Your task to perform on an android device: Go to battery settings Image 0: 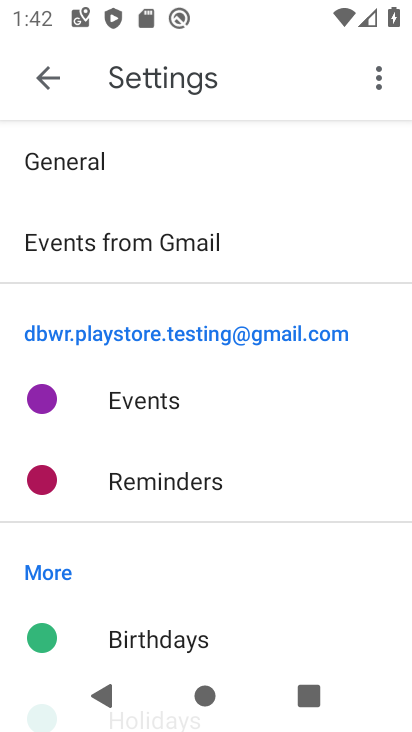
Step 0: press home button
Your task to perform on an android device: Go to battery settings Image 1: 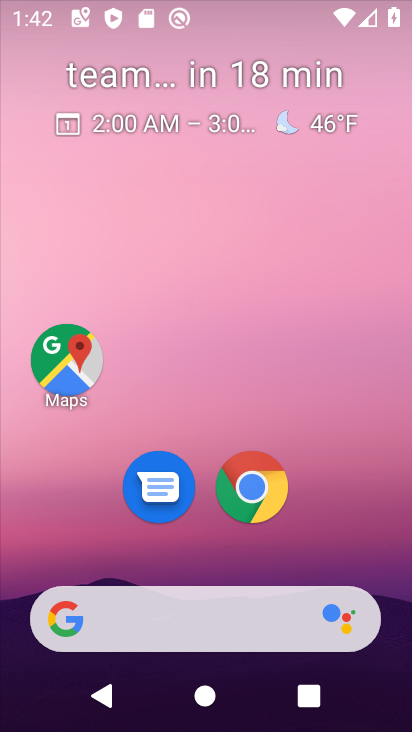
Step 1: drag from (314, 540) to (316, 98)
Your task to perform on an android device: Go to battery settings Image 2: 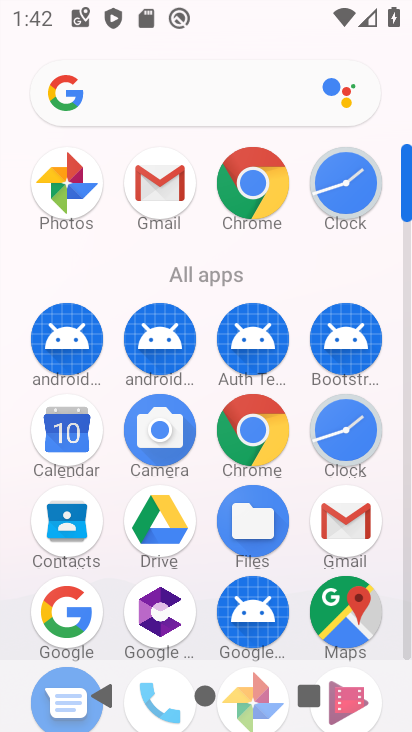
Step 2: drag from (290, 555) to (315, 151)
Your task to perform on an android device: Go to battery settings Image 3: 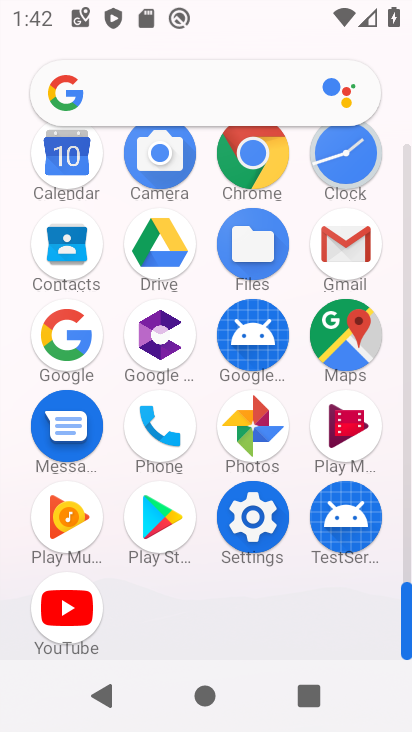
Step 3: click (265, 526)
Your task to perform on an android device: Go to battery settings Image 4: 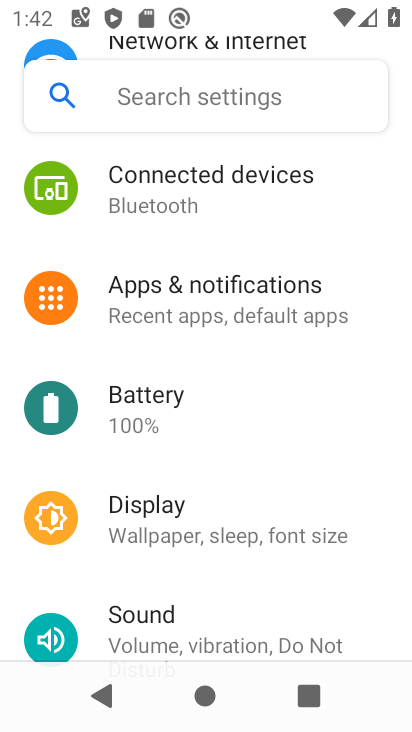
Step 4: drag from (231, 560) to (237, 384)
Your task to perform on an android device: Go to battery settings Image 5: 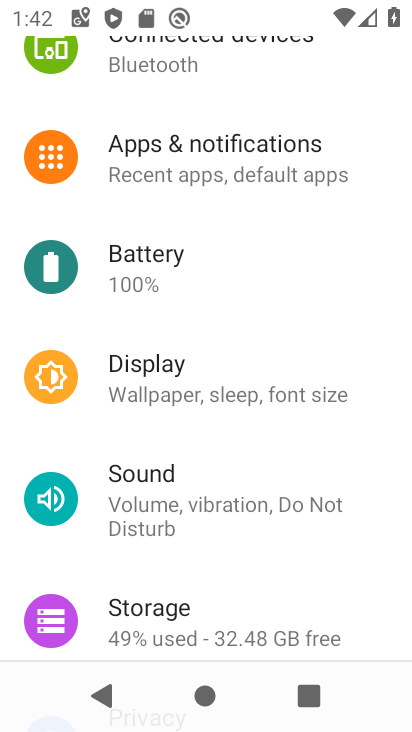
Step 5: click (152, 266)
Your task to perform on an android device: Go to battery settings Image 6: 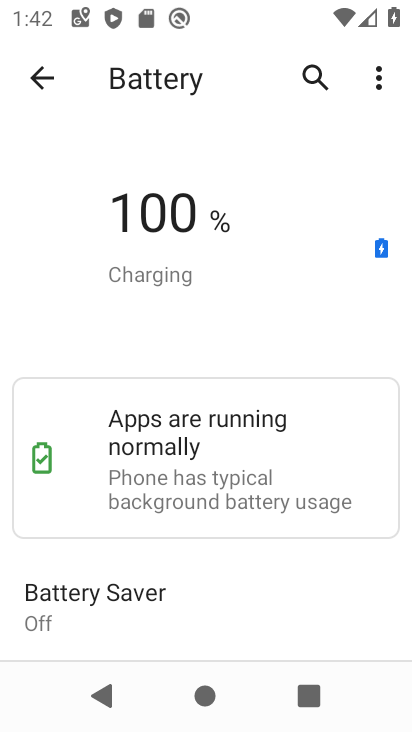
Step 6: task complete